Your task to perform on an android device: Go to location settings Image 0: 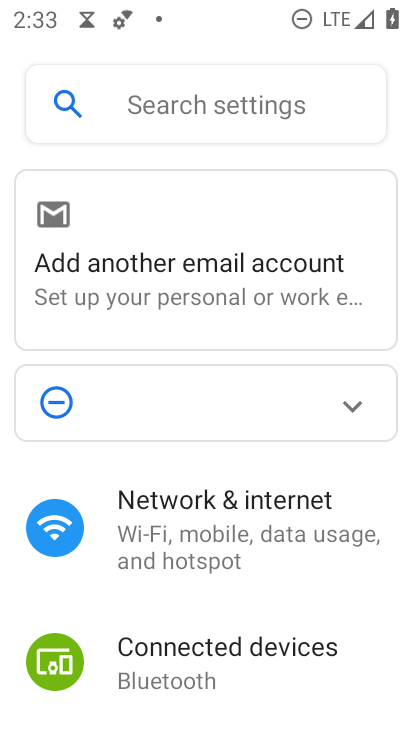
Step 0: press home button
Your task to perform on an android device: Go to location settings Image 1: 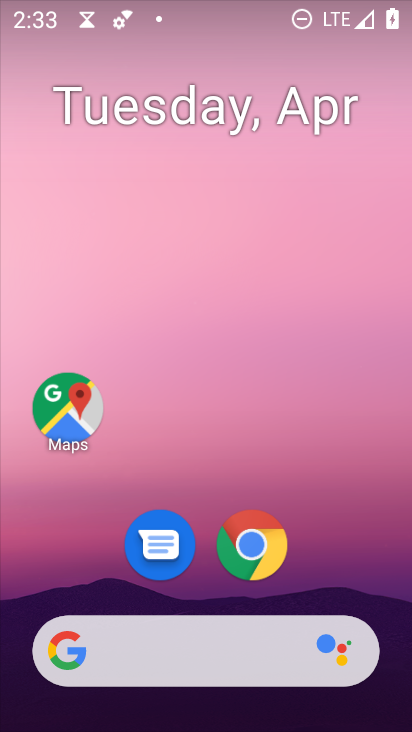
Step 1: drag from (385, 537) to (346, 120)
Your task to perform on an android device: Go to location settings Image 2: 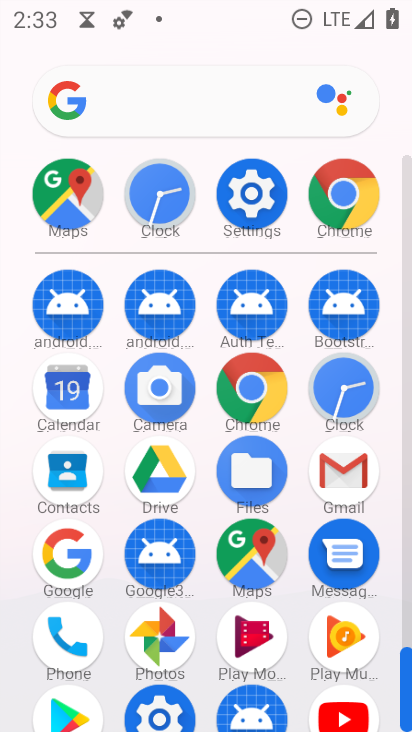
Step 2: click (268, 199)
Your task to perform on an android device: Go to location settings Image 3: 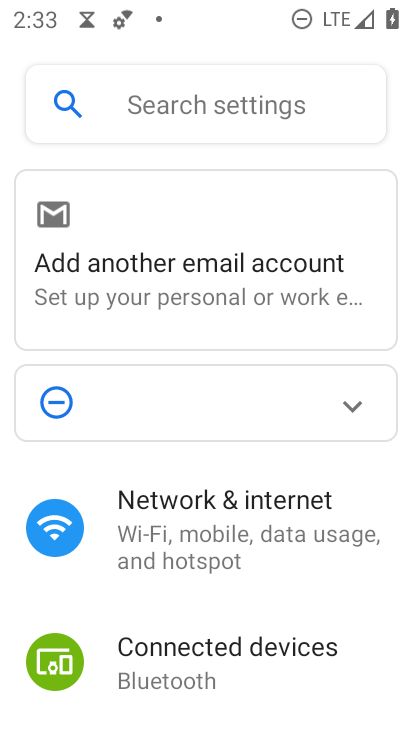
Step 3: drag from (326, 601) to (248, 187)
Your task to perform on an android device: Go to location settings Image 4: 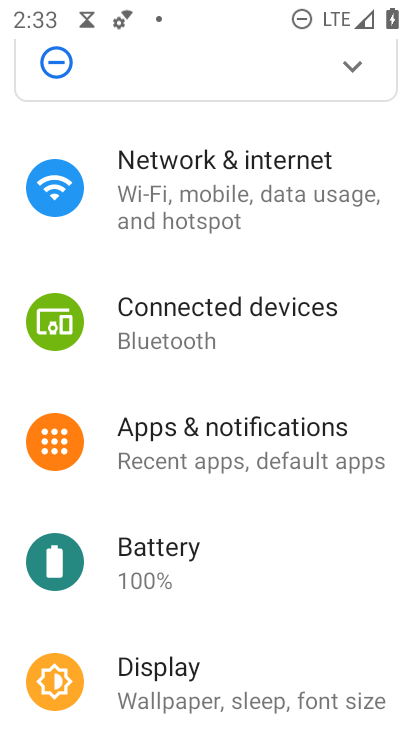
Step 4: drag from (303, 616) to (236, 278)
Your task to perform on an android device: Go to location settings Image 5: 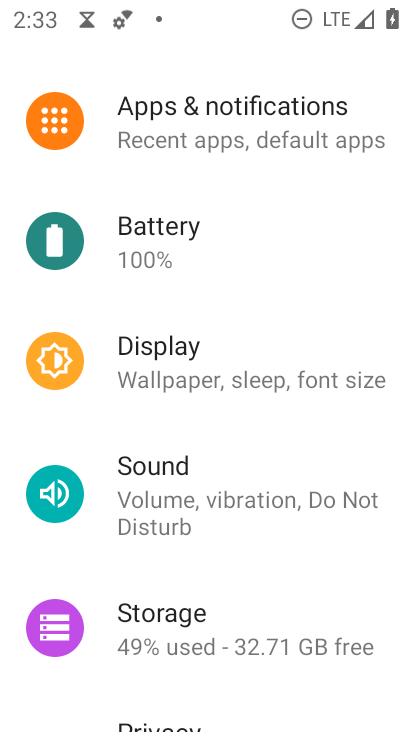
Step 5: drag from (262, 592) to (255, 214)
Your task to perform on an android device: Go to location settings Image 6: 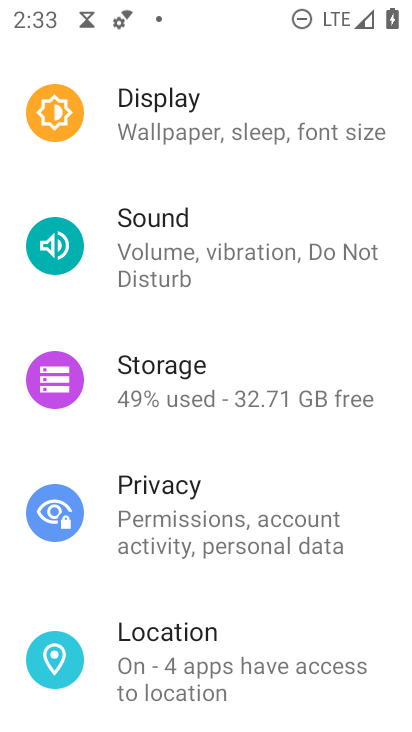
Step 6: click (272, 644)
Your task to perform on an android device: Go to location settings Image 7: 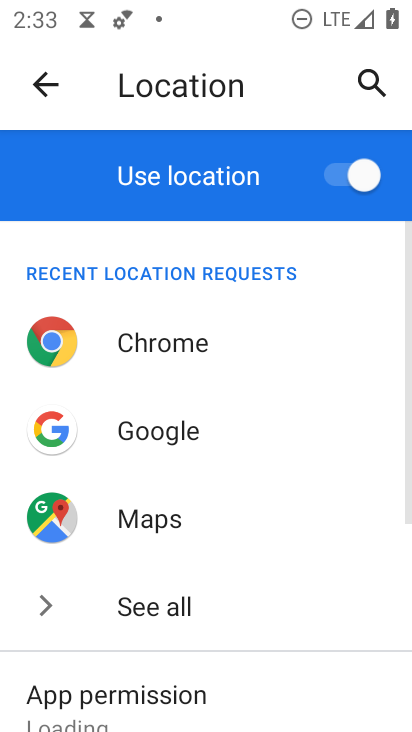
Step 7: task complete